Your task to perform on an android device: Open notification settings Image 0: 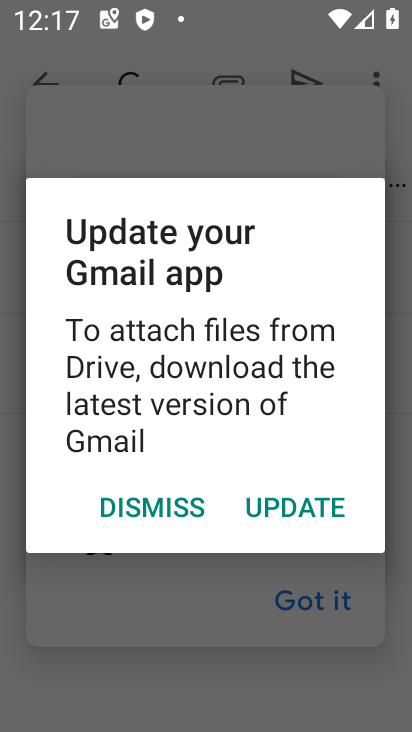
Step 0: press home button
Your task to perform on an android device: Open notification settings Image 1: 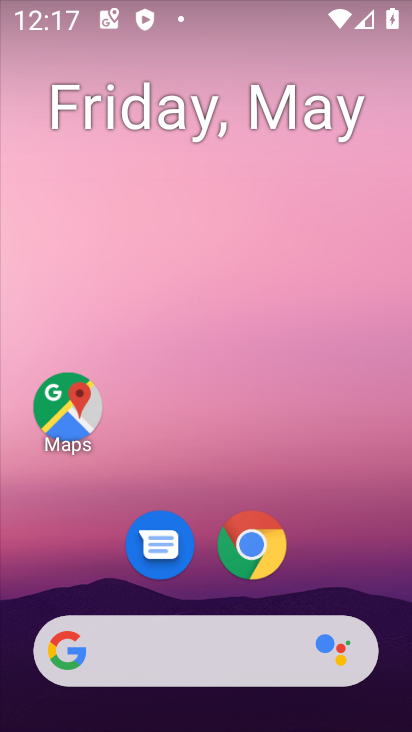
Step 1: drag from (316, 562) to (347, 193)
Your task to perform on an android device: Open notification settings Image 2: 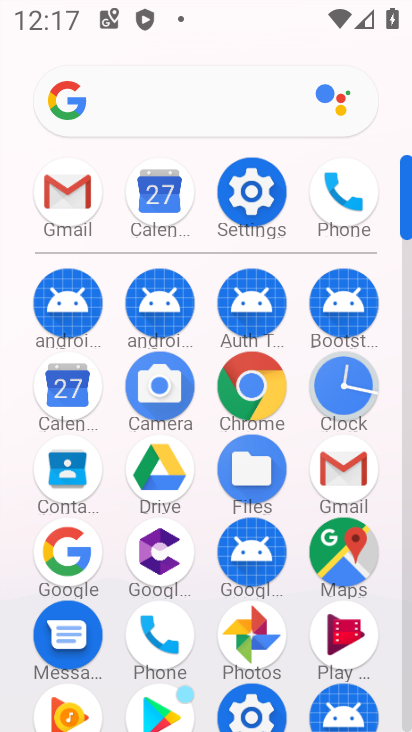
Step 2: click (256, 183)
Your task to perform on an android device: Open notification settings Image 3: 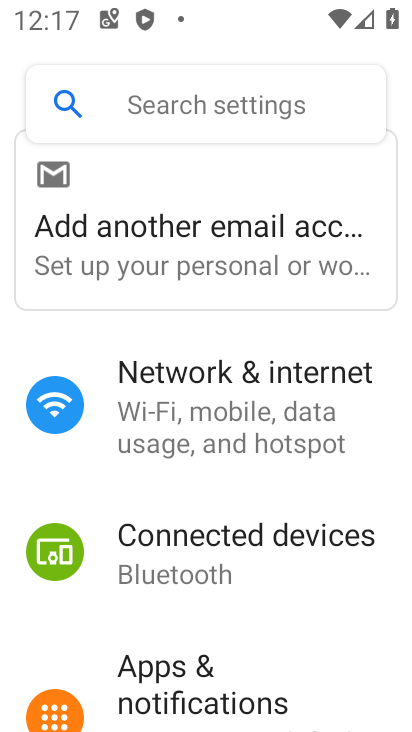
Step 3: click (225, 653)
Your task to perform on an android device: Open notification settings Image 4: 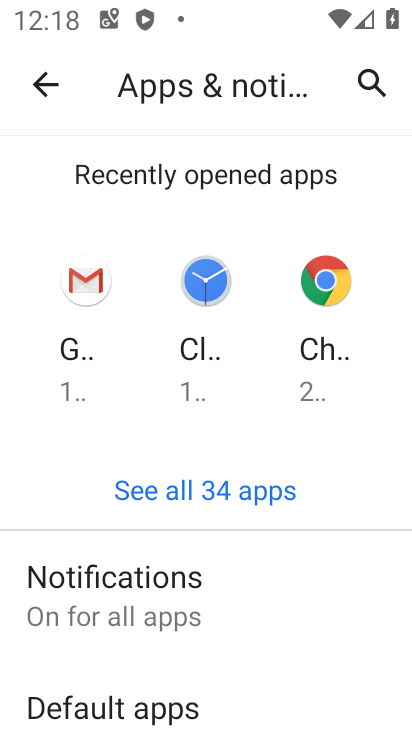
Step 4: task complete